Your task to perform on an android device: turn on javascript in the chrome app Image 0: 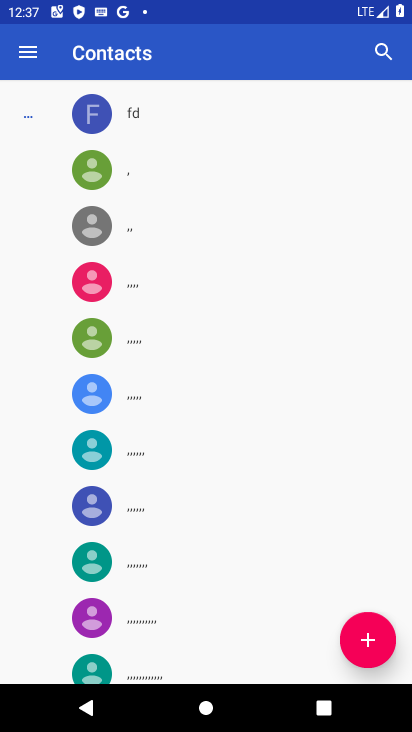
Step 0: press home button
Your task to perform on an android device: turn on javascript in the chrome app Image 1: 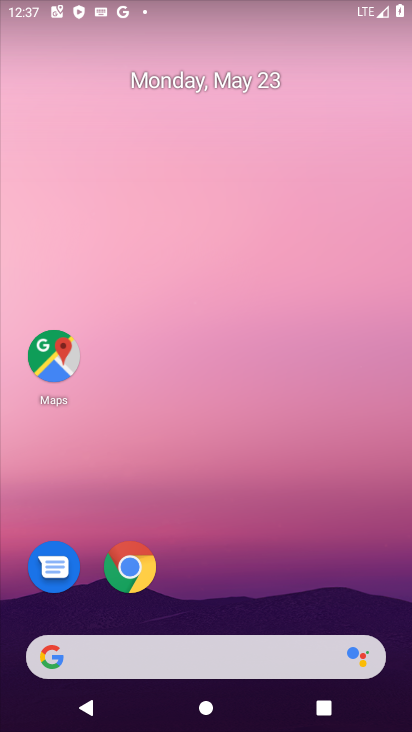
Step 1: click (146, 567)
Your task to perform on an android device: turn on javascript in the chrome app Image 2: 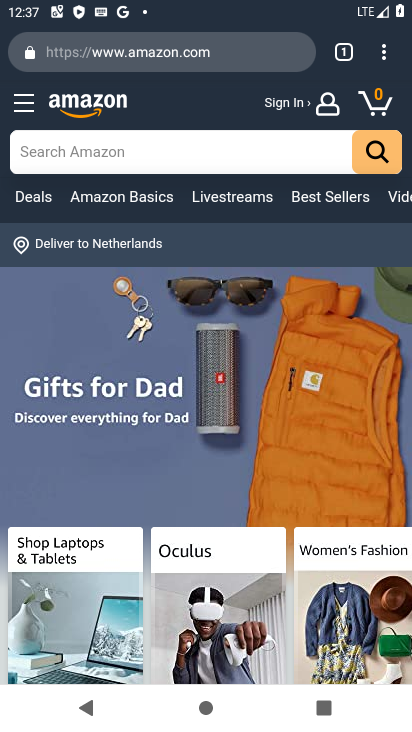
Step 2: click (380, 55)
Your task to perform on an android device: turn on javascript in the chrome app Image 3: 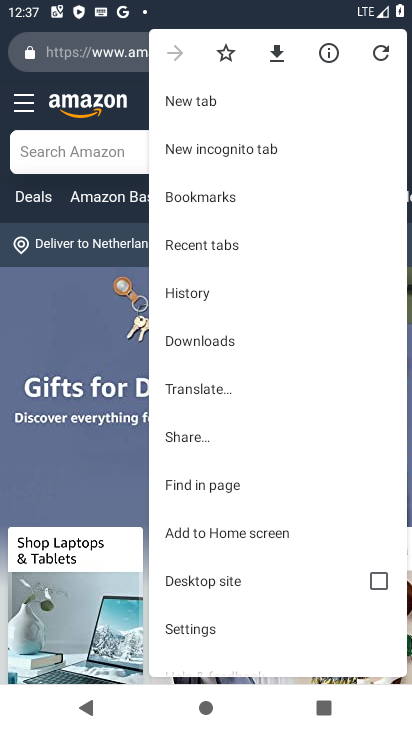
Step 3: click (256, 625)
Your task to perform on an android device: turn on javascript in the chrome app Image 4: 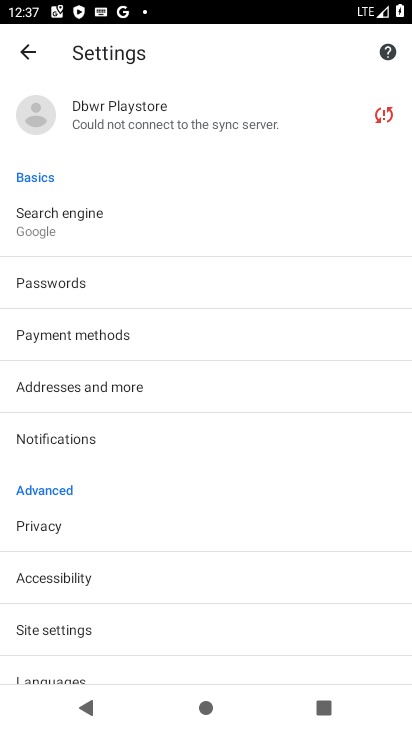
Step 4: drag from (208, 641) to (200, 280)
Your task to perform on an android device: turn on javascript in the chrome app Image 5: 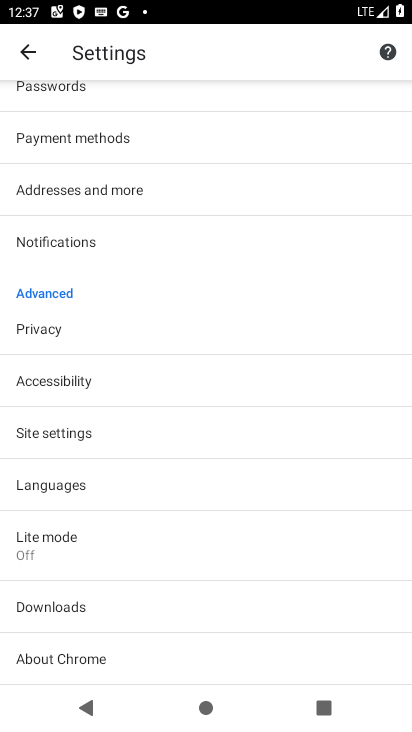
Step 5: click (221, 431)
Your task to perform on an android device: turn on javascript in the chrome app Image 6: 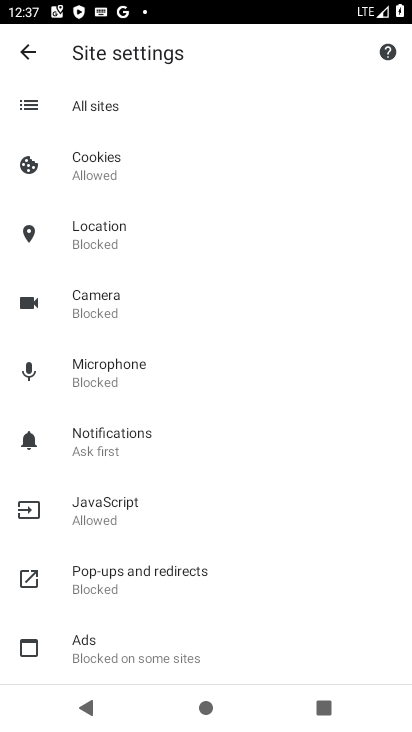
Step 6: click (240, 514)
Your task to perform on an android device: turn on javascript in the chrome app Image 7: 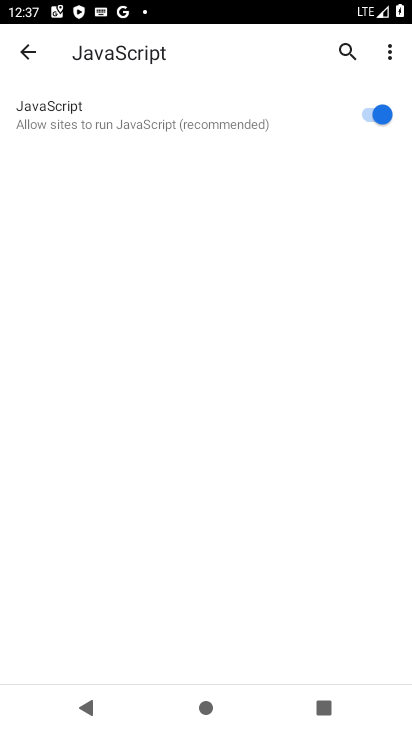
Step 7: task complete